Your task to perform on an android device: Turn off the flashlight Image 0: 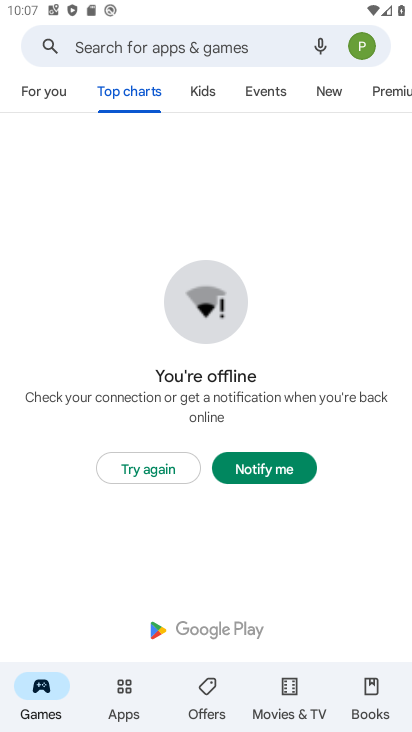
Step 0: press home button
Your task to perform on an android device: Turn off the flashlight Image 1: 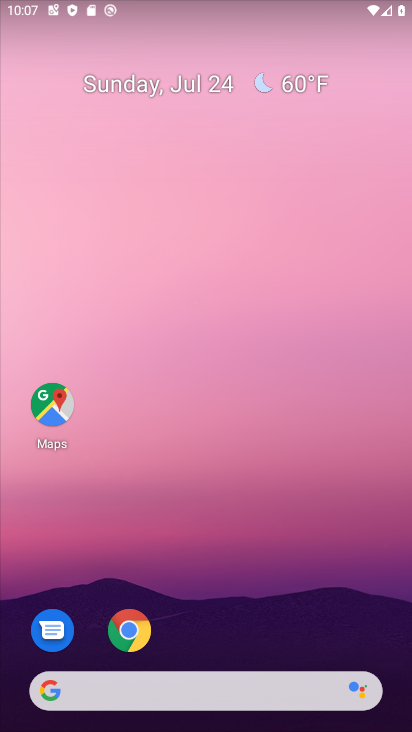
Step 1: drag from (204, 642) to (257, 101)
Your task to perform on an android device: Turn off the flashlight Image 2: 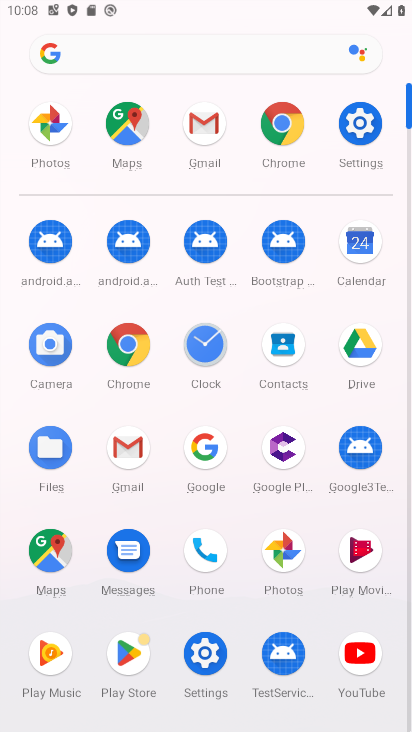
Step 2: click (207, 656)
Your task to perform on an android device: Turn off the flashlight Image 3: 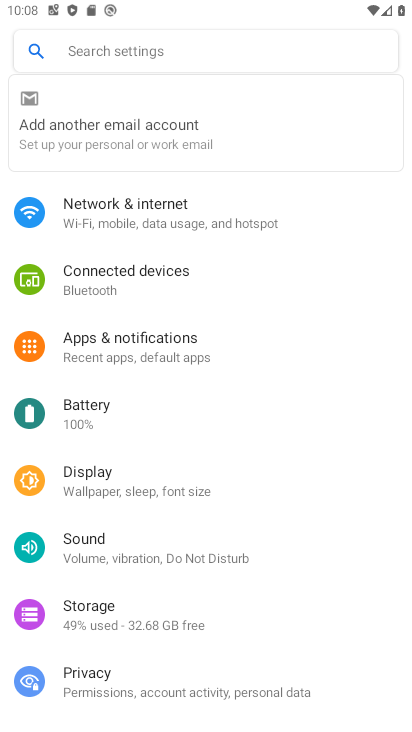
Step 3: click (176, 52)
Your task to perform on an android device: Turn off the flashlight Image 4: 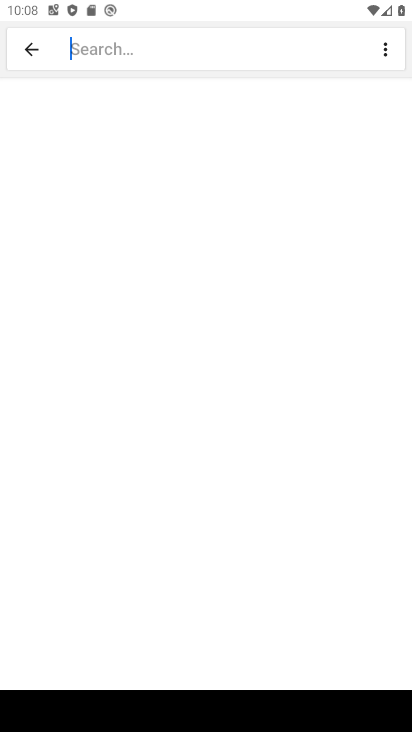
Step 4: type "flashlight"
Your task to perform on an android device: Turn off the flashlight Image 5: 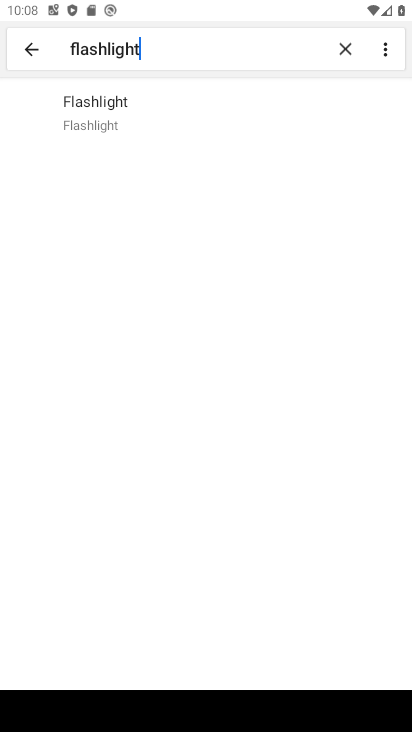
Step 5: click (98, 99)
Your task to perform on an android device: Turn off the flashlight Image 6: 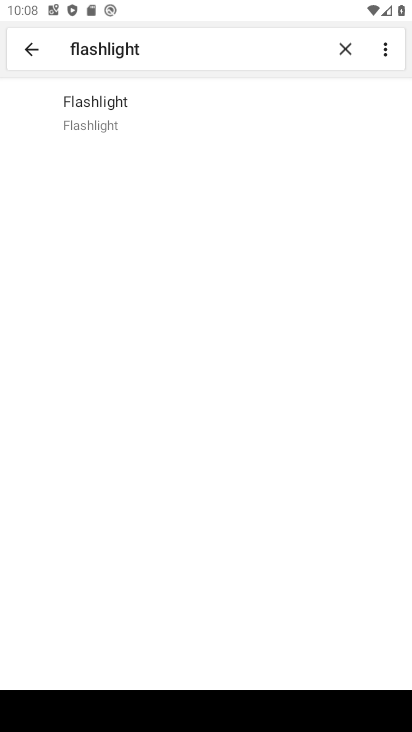
Step 6: click (77, 118)
Your task to perform on an android device: Turn off the flashlight Image 7: 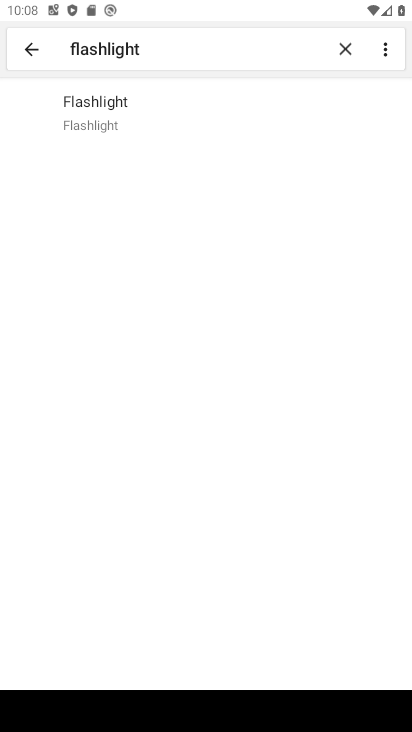
Step 7: task complete